Your task to perform on an android device: When is my next appointment? Image 0: 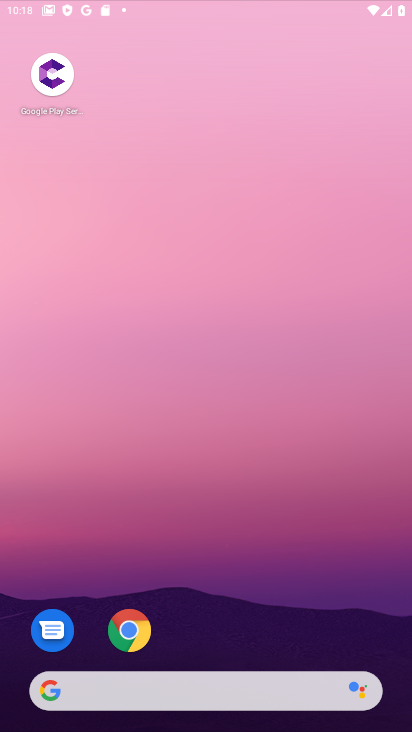
Step 0: drag from (190, 549) to (259, 90)
Your task to perform on an android device: When is my next appointment? Image 1: 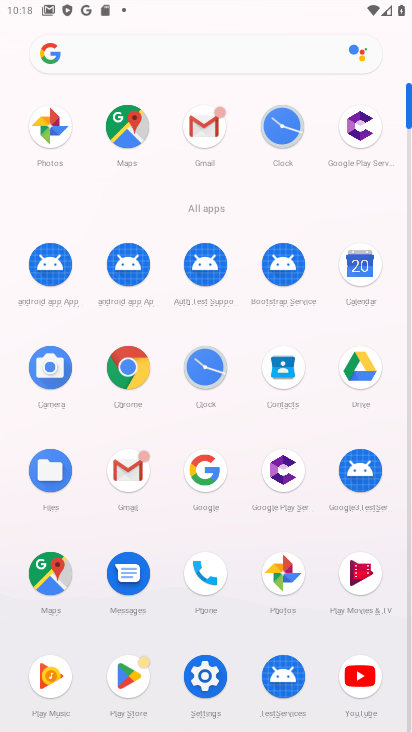
Step 1: drag from (254, 562) to (318, 102)
Your task to perform on an android device: When is my next appointment? Image 2: 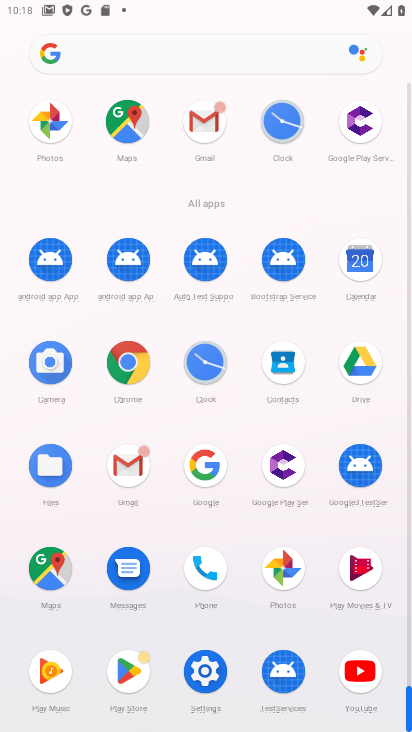
Step 2: click (366, 258)
Your task to perform on an android device: When is my next appointment? Image 3: 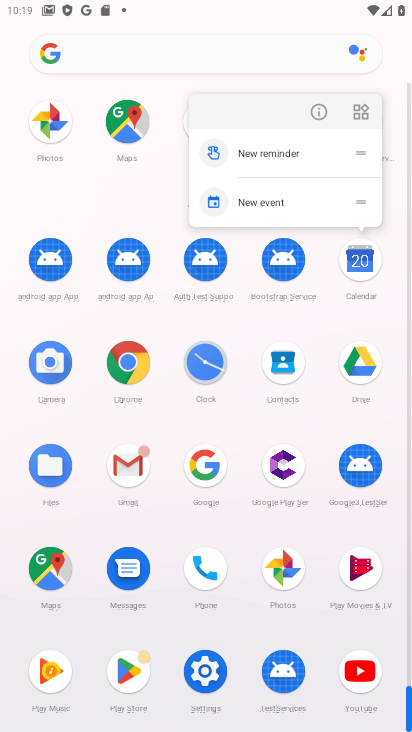
Step 3: click (316, 110)
Your task to perform on an android device: When is my next appointment? Image 4: 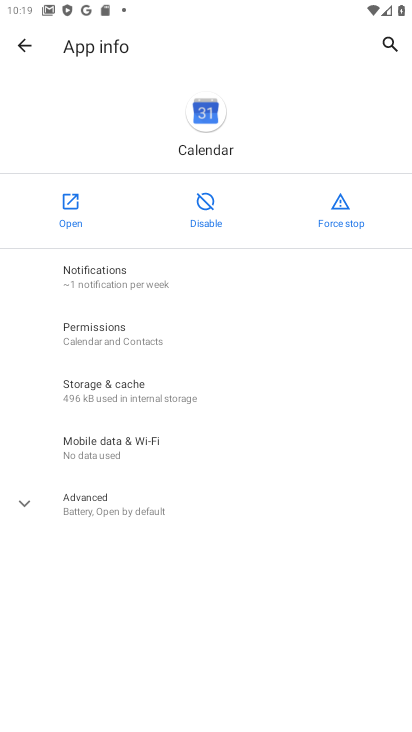
Step 4: click (70, 195)
Your task to perform on an android device: When is my next appointment? Image 5: 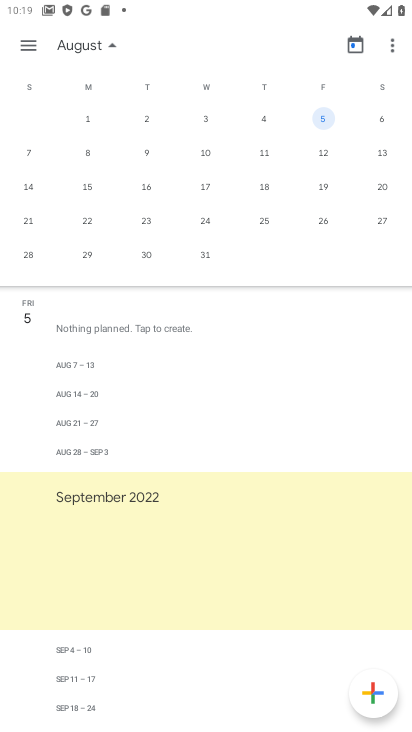
Step 5: click (355, 44)
Your task to perform on an android device: When is my next appointment? Image 6: 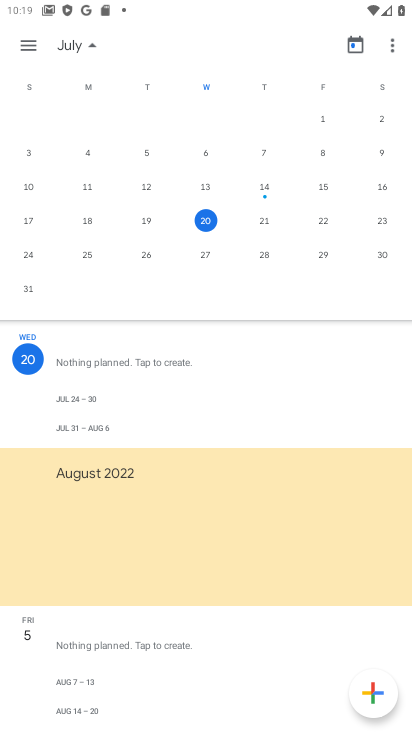
Step 6: task complete